Your task to perform on an android device: find snoozed emails in the gmail app Image 0: 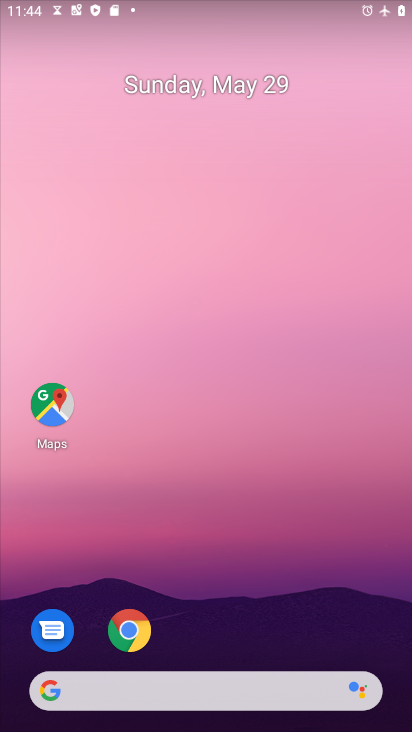
Step 0: drag from (280, 505) to (228, 4)
Your task to perform on an android device: find snoozed emails in the gmail app Image 1: 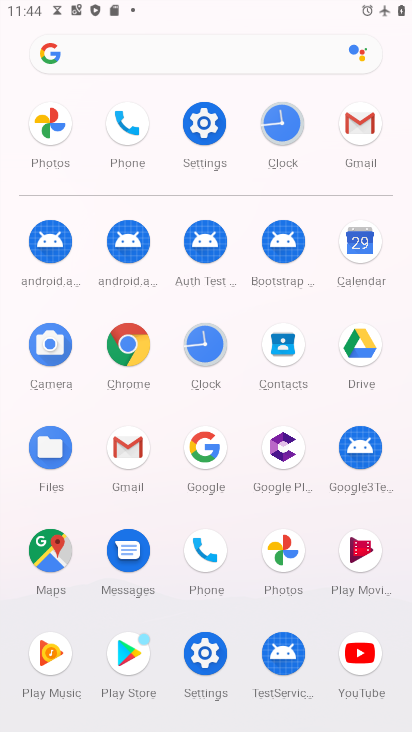
Step 1: click (368, 118)
Your task to perform on an android device: find snoozed emails in the gmail app Image 2: 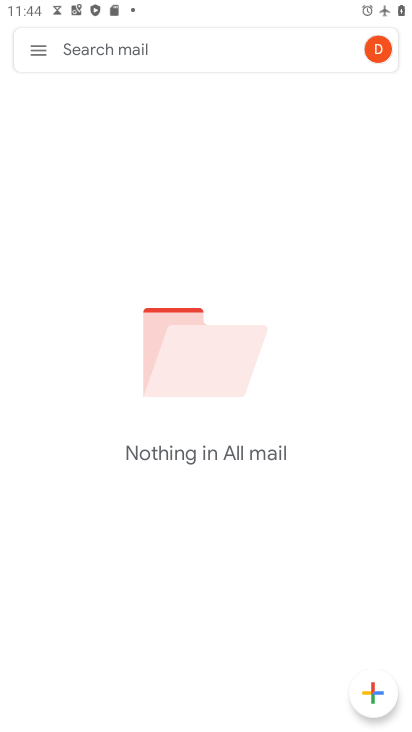
Step 2: click (55, 57)
Your task to perform on an android device: find snoozed emails in the gmail app Image 3: 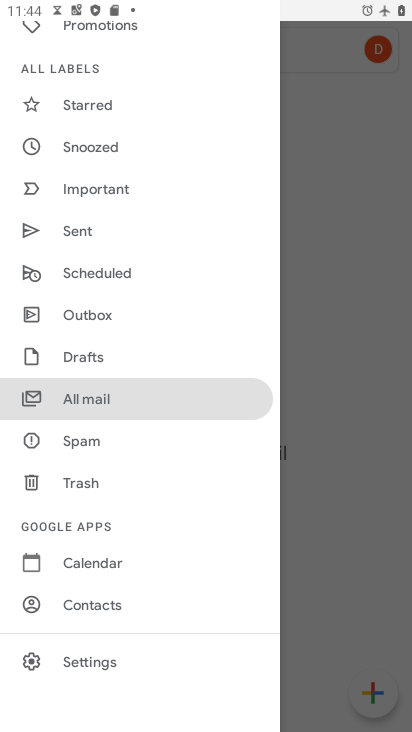
Step 3: click (104, 149)
Your task to perform on an android device: find snoozed emails in the gmail app Image 4: 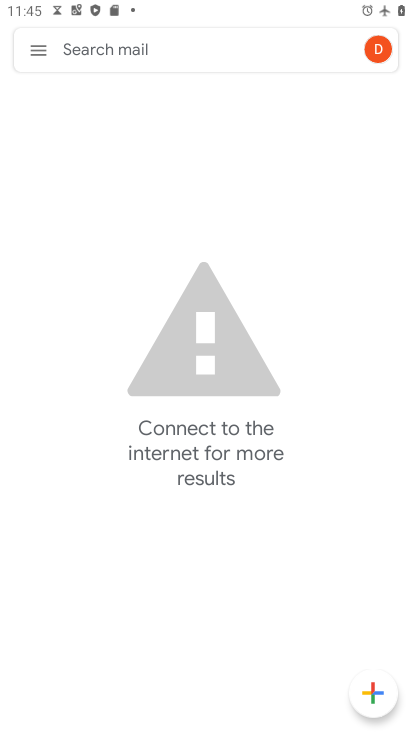
Step 4: drag from (217, 374) to (219, 685)
Your task to perform on an android device: find snoozed emails in the gmail app Image 5: 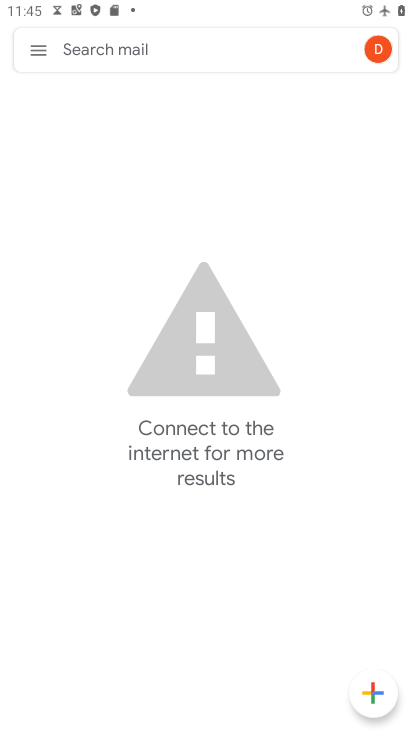
Step 5: drag from (141, 37) to (80, 476)
Your task to perform on an android device: find snoozed emails in the gmail app Image 6: 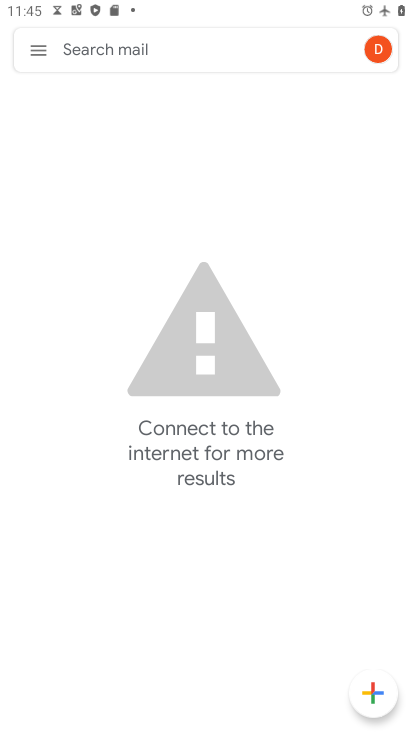
Step 6: drag from (223, 6) to (134, 582)
Your task to perform on an android device: find snoozed emails in the gmail app Image 7: 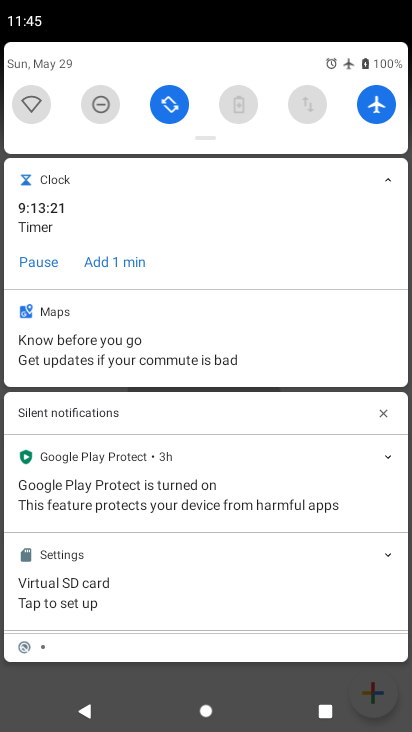
Step 7: click (379, 88)
Your task to perform on an android device: find snoozed emails in the gmail app Image 8: 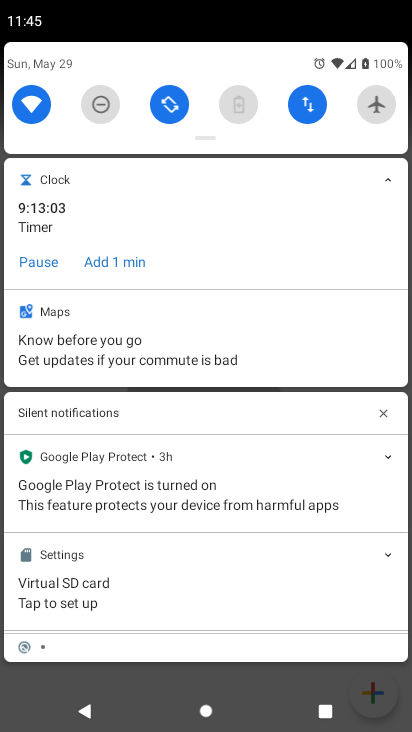
Step 8: drag from (251, 682) to (238, 6)
Your task to perform on an android device: find snoozed emails in the gmail app Image 9: 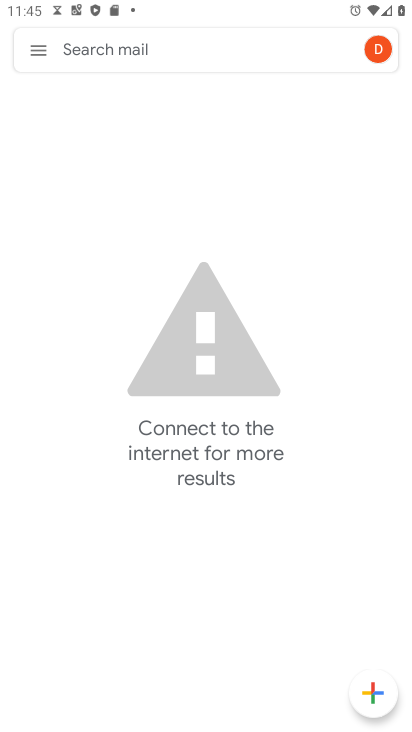
Step 9: click (36, 39)
Your task to perform on an android device: find snoozed emails in the gmail app Image 10: 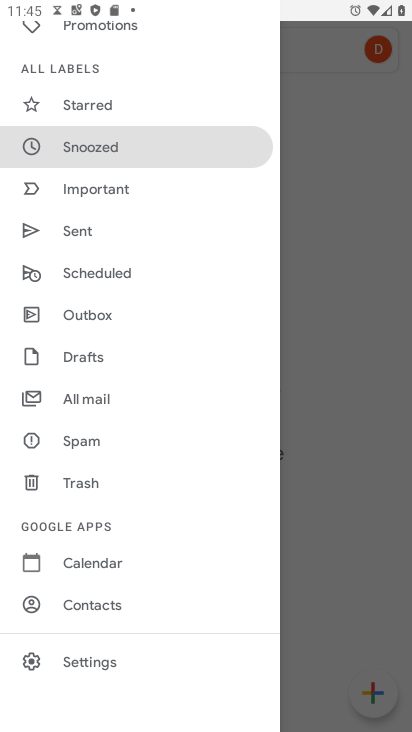
Step 10: click (123, 143)
Your task to perform on an android device: find snoozed emails in the gmail app Image 11: 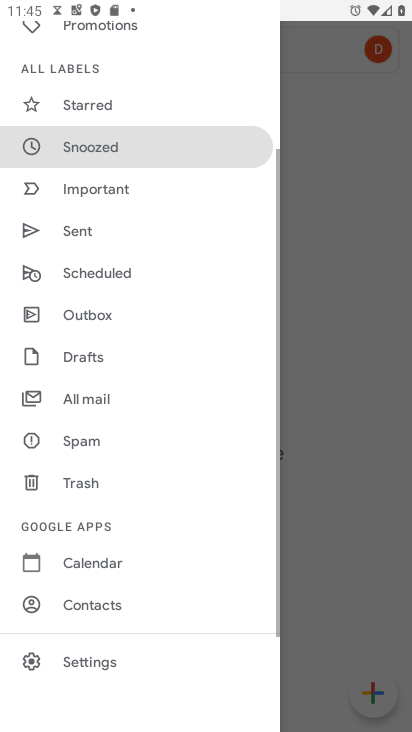
Step 11: click (123, 143)
Your task to perform on an android device: find snoozed emails in the gmail app Image 12: 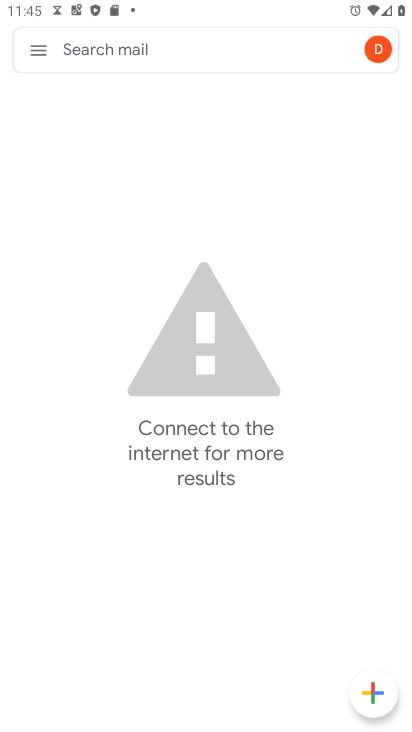
Step 12: task complete